Your task to perform on an android device: turn on the 12-hour format for clock Image 0: 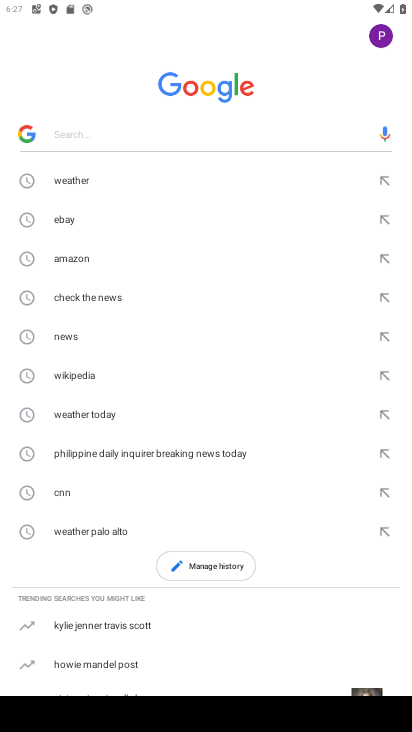
Step 0: press home button
Your task to perform on an android device: turn on the 12-hour format for clock Image 1: 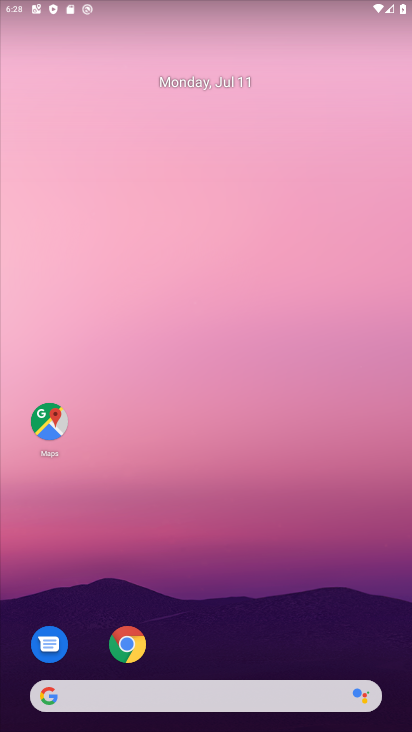
Step 1: drag from (260, 706) to (368, 138)
Your task to perform on an android device: turn on the 12-hour format for clock Image 2: 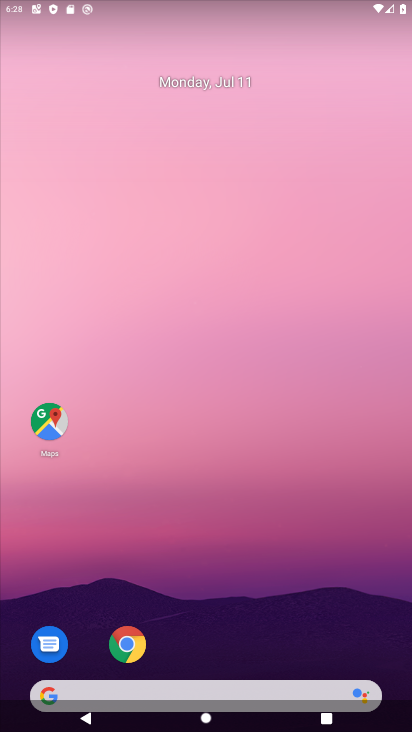
Step 2: drag from (294, 612) to (296, 79)
Your task to perform on an android device: turn on the 12-hour format for clock Image 3: 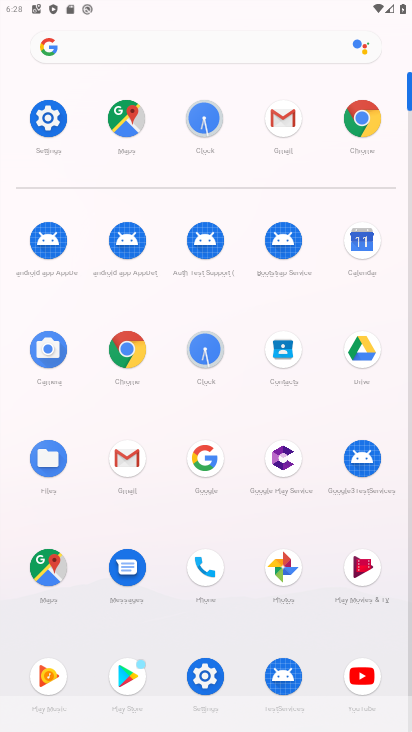
Step 3: click (199, 352)
Your task to perform on an android device: turn on the 12-hour format for clock Image 4: 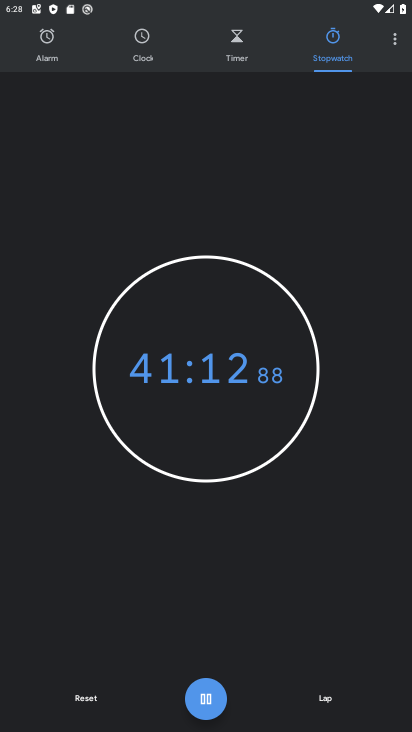
Step 4: click (388, 33)
Your task to perform on an android device: turn on the 12-hour format for clock Image 5: 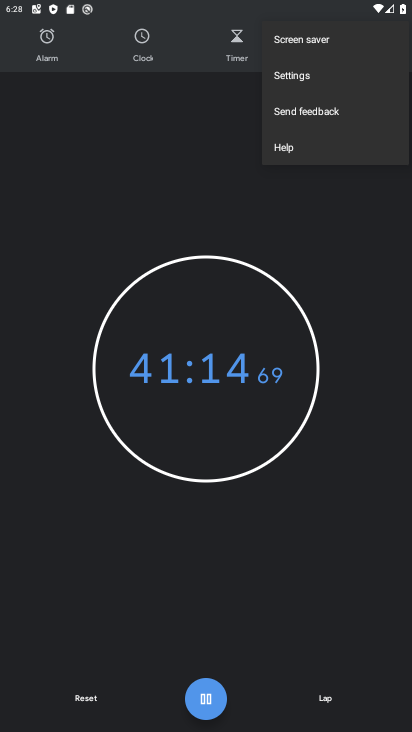
Step 5: click (290, 80)
Your task to perform on an android device: turn on the 12-hour format for clock Image 6: 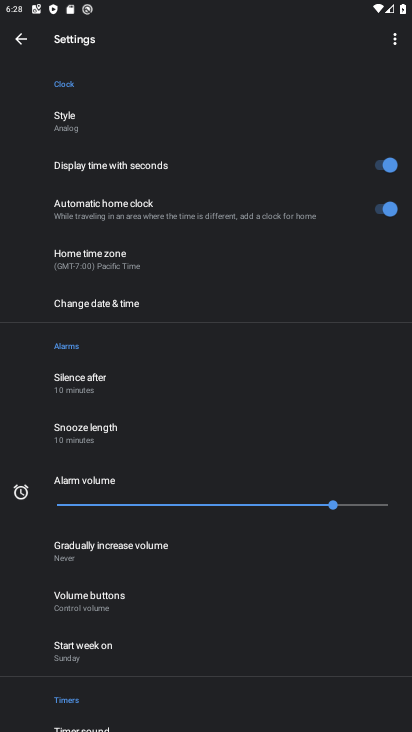
Step 6: click (120, 303)
Your task to perform on an android device: turn on the 12-hour format for clock Image 7: 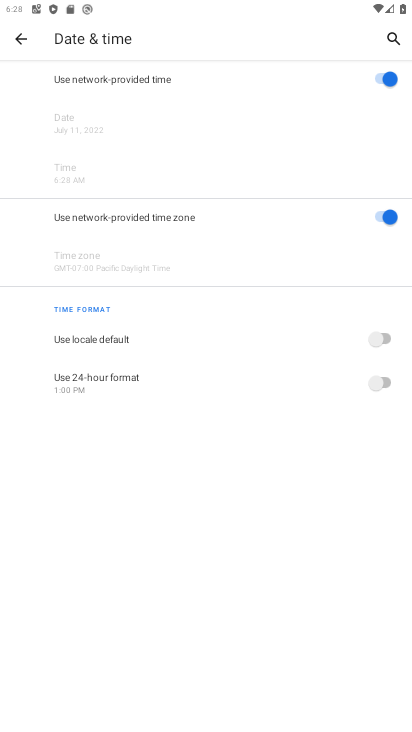
Step 7: task complete